Your task to perform on an android device: turn off translation in the chrome app Image 0: 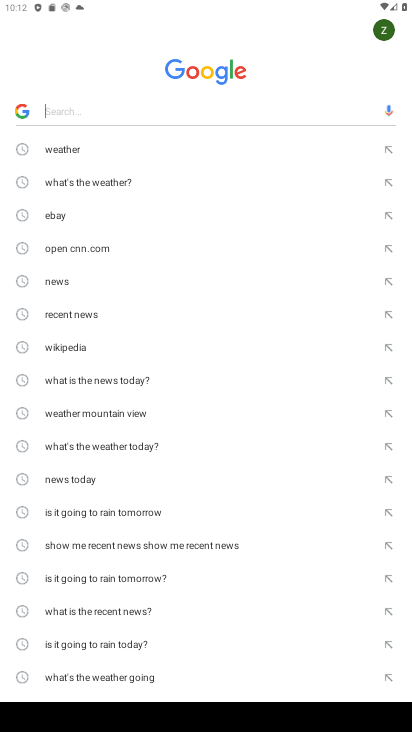
Step 0: task complete